Your task to perform on an android device: add a contact in the contacts app Image 0: 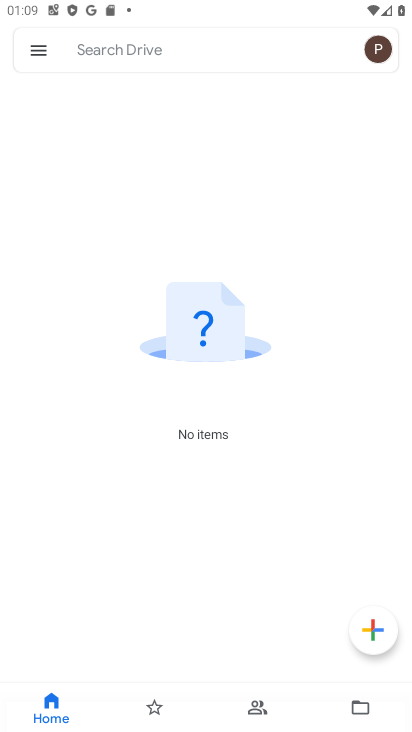
Step 0: press home button
Your task to perform on an android device: add a contact in the contacts app Image 1: 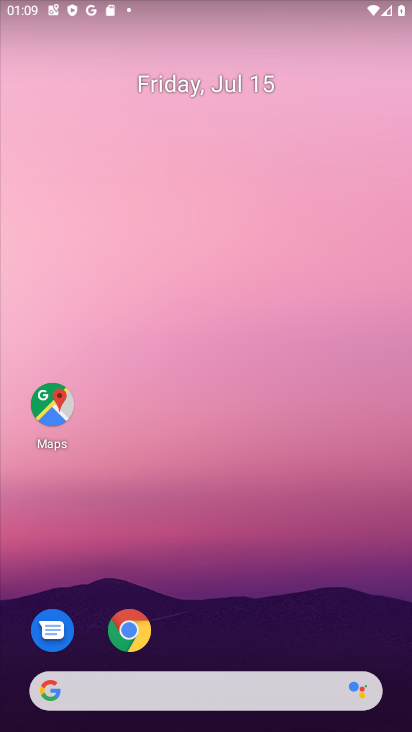
Step 1: drag from (269, 633) to (237, 93)
Your task to perform on an android device: add a contact in the contacts app Image 2: 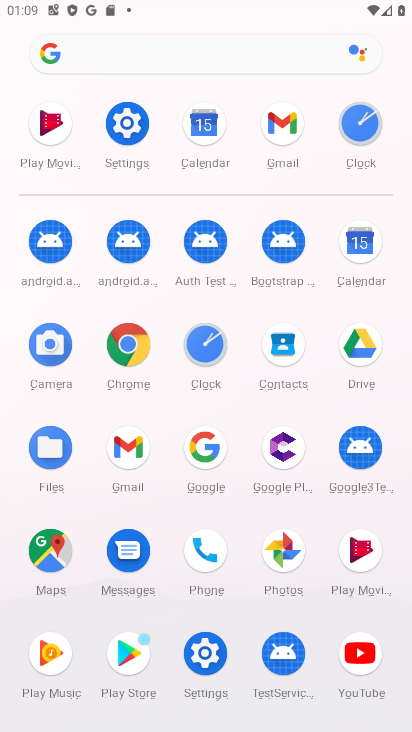
Step 2: click (266, 360)
Your task to perform on an android device: add a contact in the contacts app Image 3: 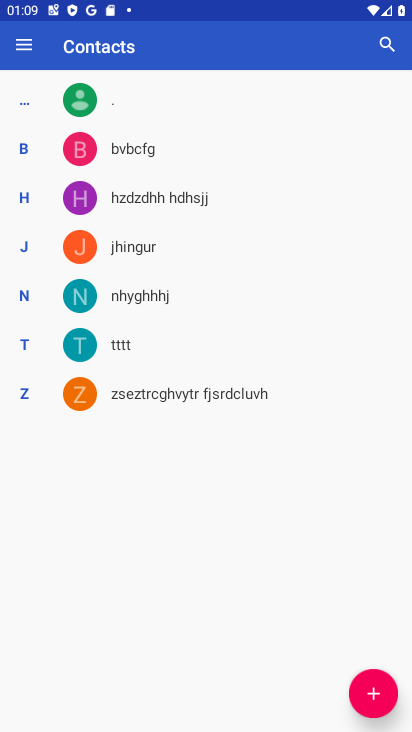
Step 3: click (361, 700)
Your task to perform on an android device: add a contact in the contacts app Image 4: 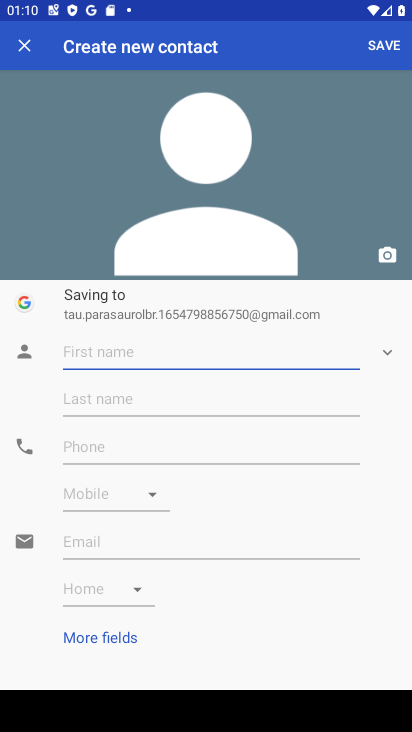
Step 4: type "xsddvs"
Your task to perform on an android device: add a contact in the contacts app Image 5: 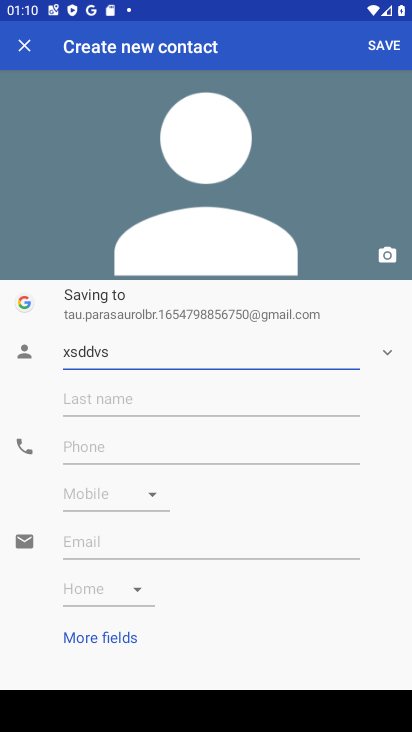
Step 5: click (316, 384)
Your task to perform on an android device: add a contact in the contacts app Image 6: 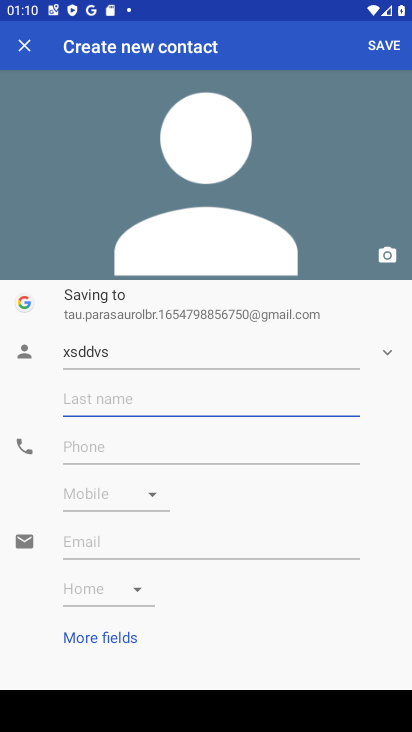
Step 6: type "xdffs g"
Your task to perform on an android device: add a contact in the contacts app Image 7: 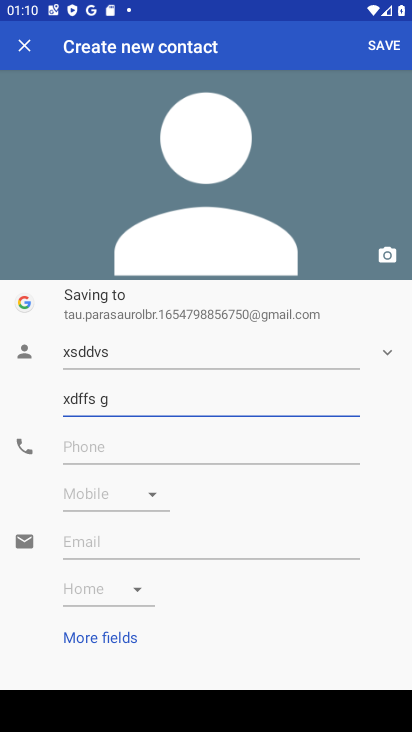
Step 7: click (306, 442)
Your task to perform on an android device: add a contact in the contacts app Image 8: 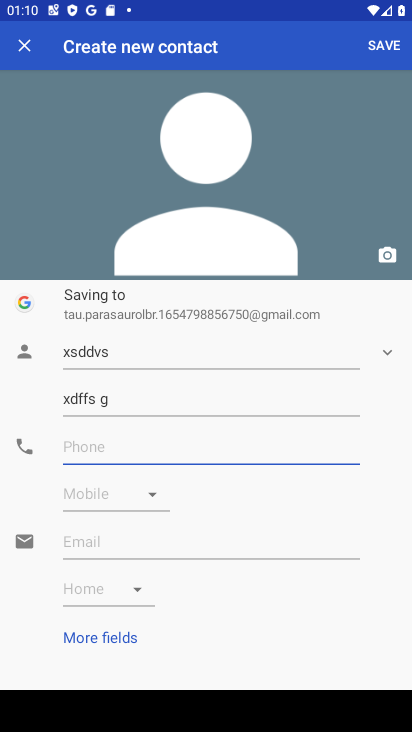
Step 8: type "1224235454364"
Your task to perform on an android device: add a contact in the contacts app Image 9: 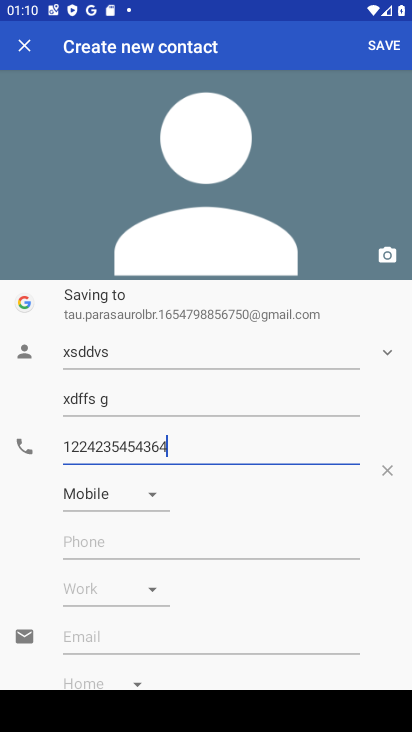
Step 9: click (369, 40)
Your task to perform on an android device: add a contact in the contacts app Image 10: 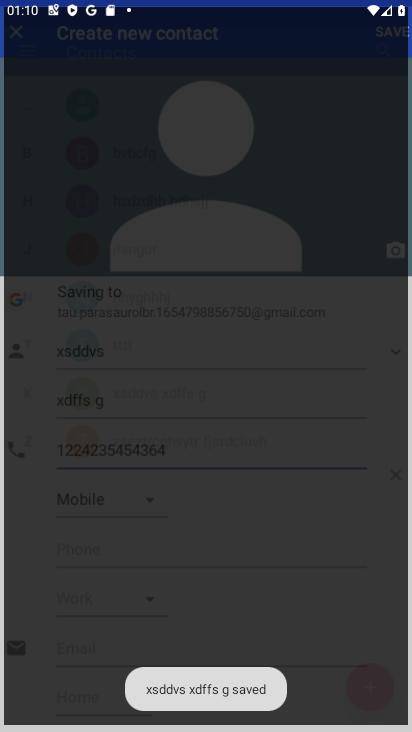
Step 10: task complete